Your task to perform on an android device: Open Yahoo.com Image 0: 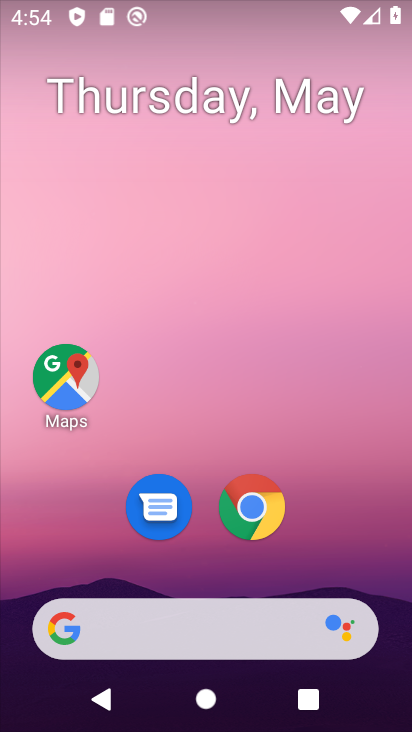
Step 0: drag from (312, 522) to (210, 145)
Your task to perform on an android device: Open Yahoo.com Image 1: 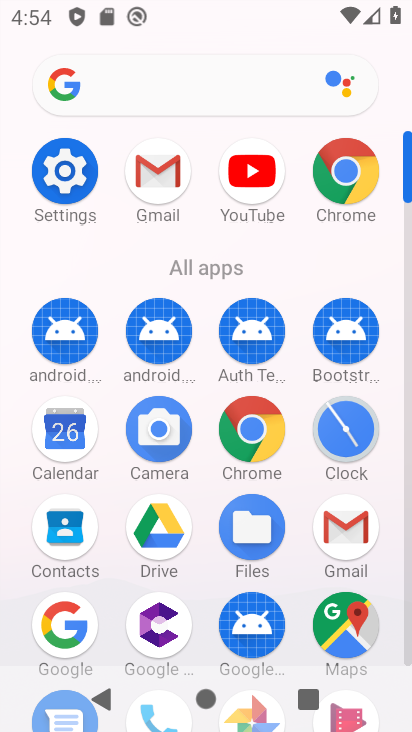
Step 1: click (257, 422)
Your task to perform on an android device: Open Yahoo.com Image 2: 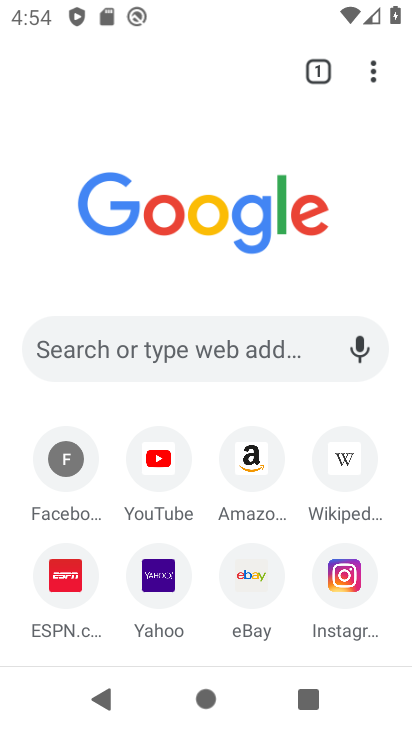
Step 2: click (218, 347)
Your task to perform on an android device: Open Yahoo.com Image 3: 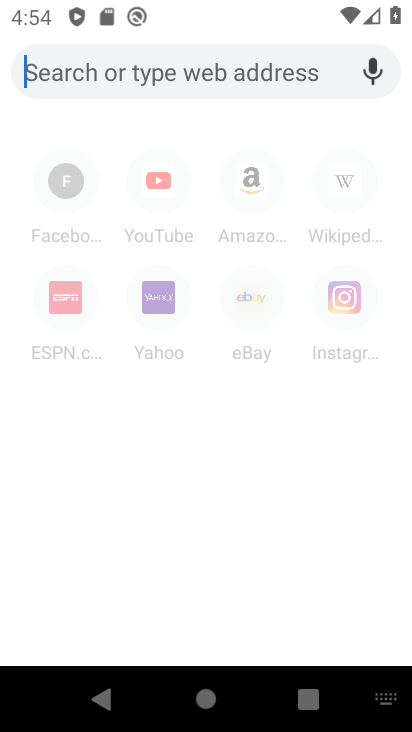
Step 3: type "yahoo.com"
Your task to perform on an android device: Open Yahoo.com Image 4: 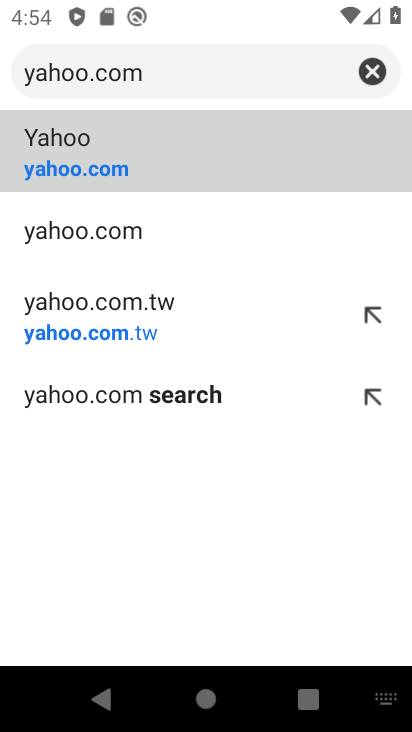
Step 4: click (102, 169)
Your task to perform on an android device: Open Yahoo.com Image 5: 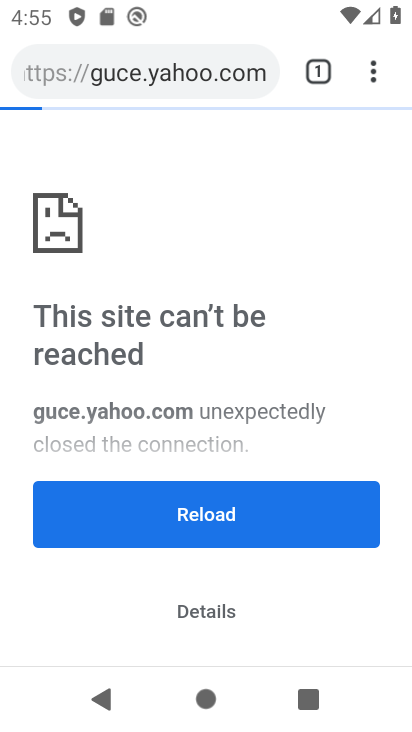
Step 5: click (210, 86)
Your task to perform on an android device: Open Yahoo.com Image 6: 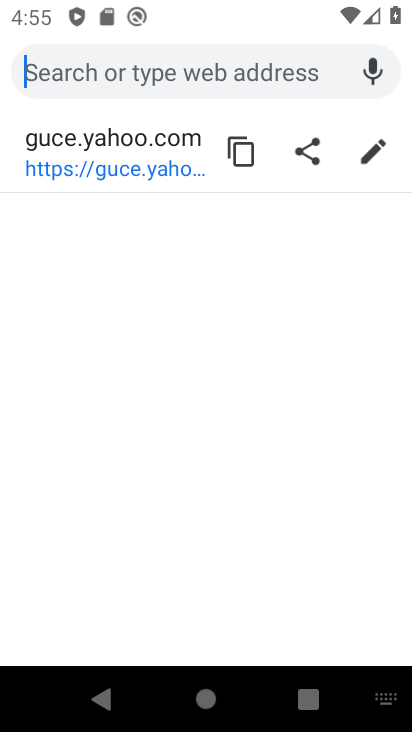
Step 6: type "yahoo.com"
Your task to perform on an android device: Open Yahoo.com Image 7: 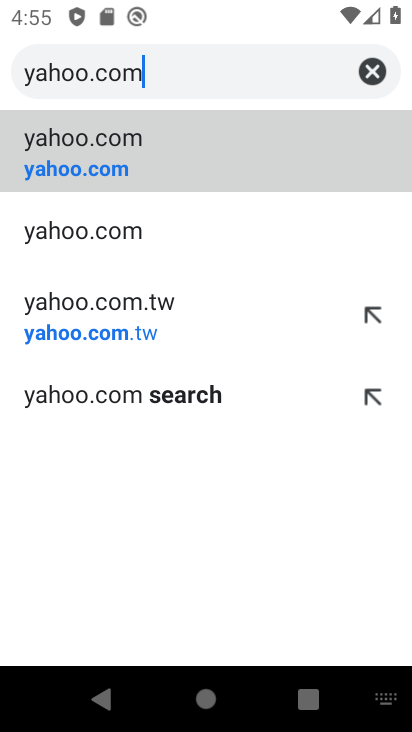
Step 7: click (63, 165)
Your task to perform on an android device: Open Yahoo.com Image 8: 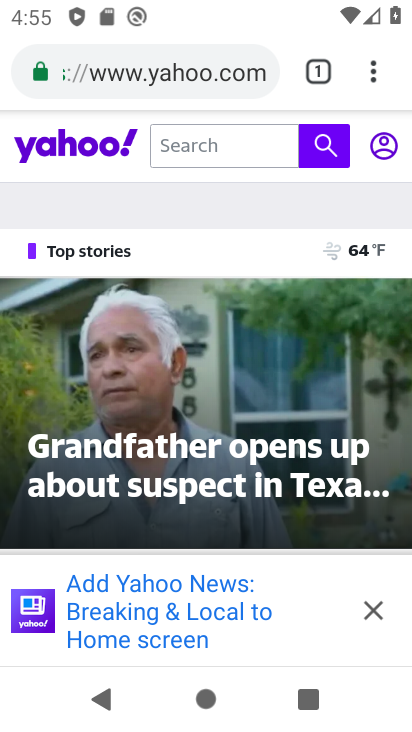
Step 8: task complete